Your task to perform on an android device: toggle pop-ups in chrome Image 0: 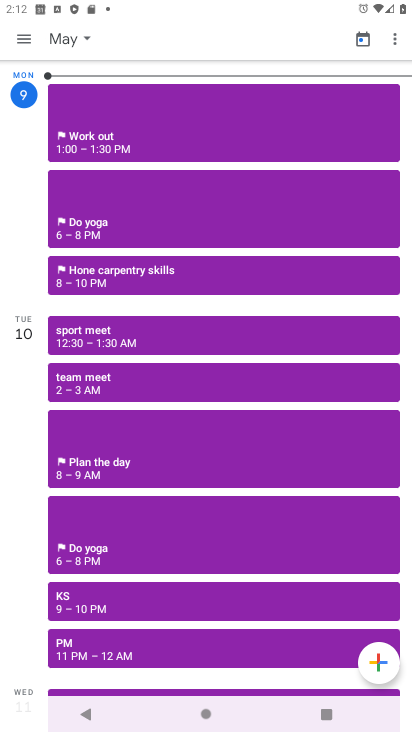
Step 0: press home button
Your task to perform on an android device: toggle pop-ups in chrome Image 1: 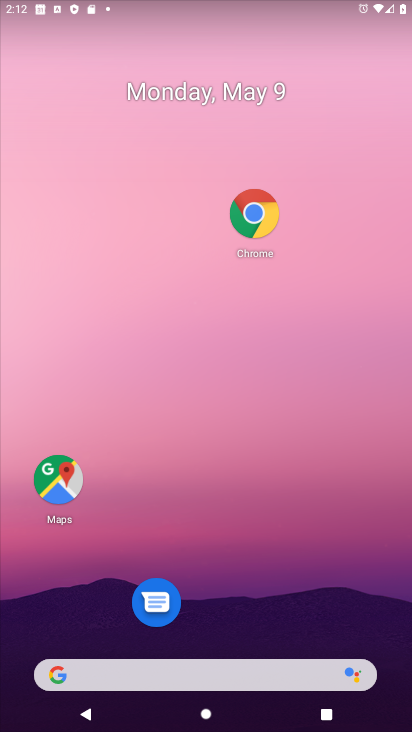
Step 1: click (262, 235)
Your task to perform on an android device: toggle pop-ups in chrome Image 2: 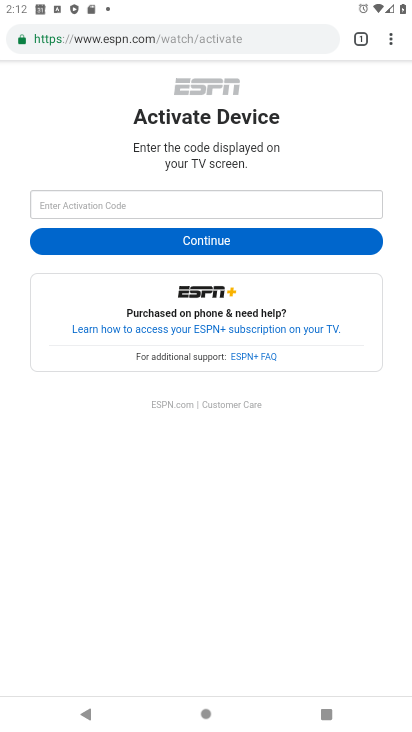
Step 2: click (384, 51)
Your task to perform on an android device: toggle pop-ups in chrome Image 3: 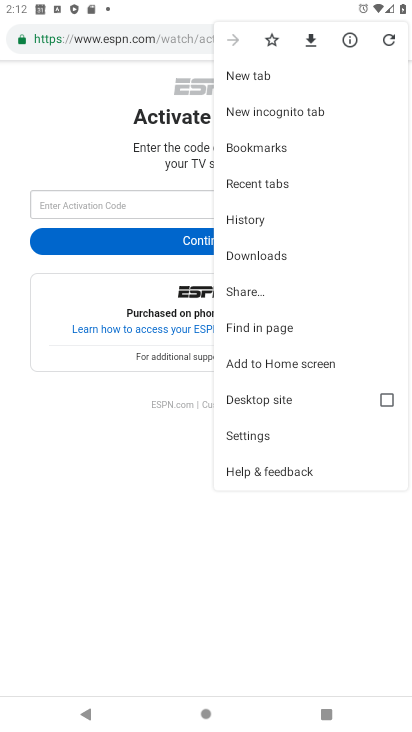
Step 3: click (265, 437)
Your task to perform on an android device: toggle pop-ups in chrome Image 4: 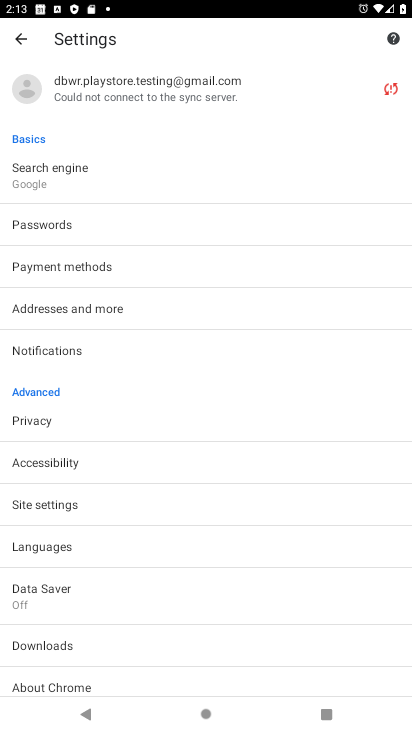
Step 4: click (245, 520)
Your task to perform on an android device: toggle pop-ups in chrome Image 5: 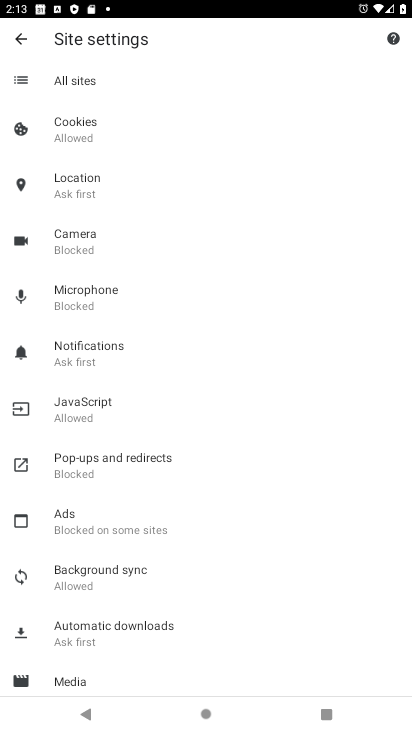
Step 5: click (187, 464)
Your task to perform on an android device: toggle pop-ups in chrome Image 6: 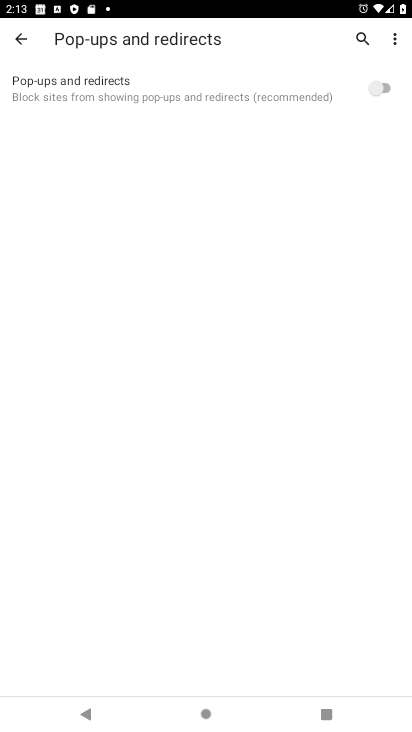
Step 6: click (379, 85)
Your task to perform on an android device: toggle pop-ups in chrome Image 7: 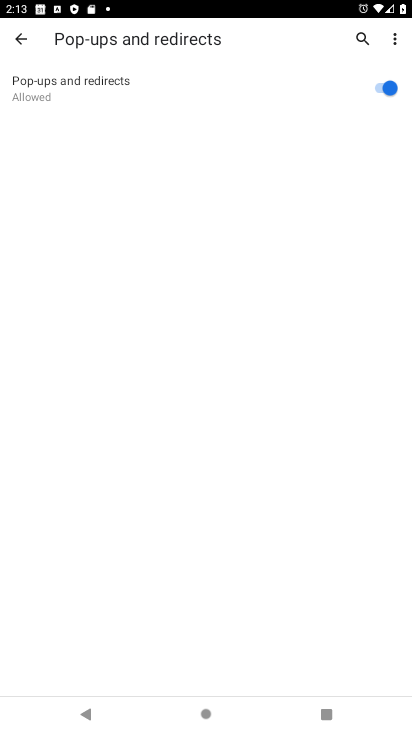
Step 7: task complete